Your task to perform on an android device: Open calendar and show me the fourth week of next month Image 0: 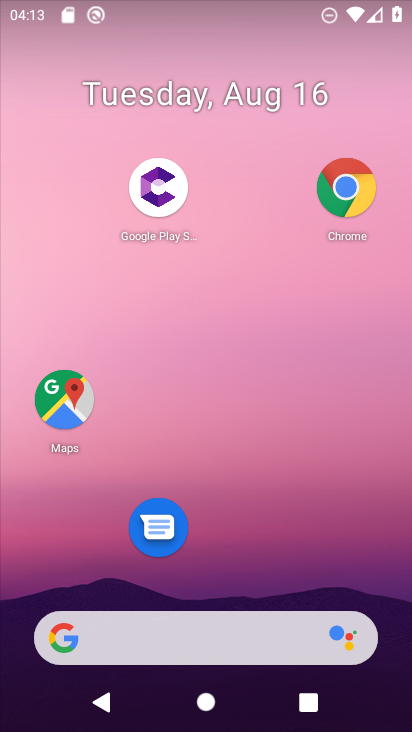
Step 0: press home button
Your task to perform on an android device: Open calendar and show me the fourth week of next month Image 1: 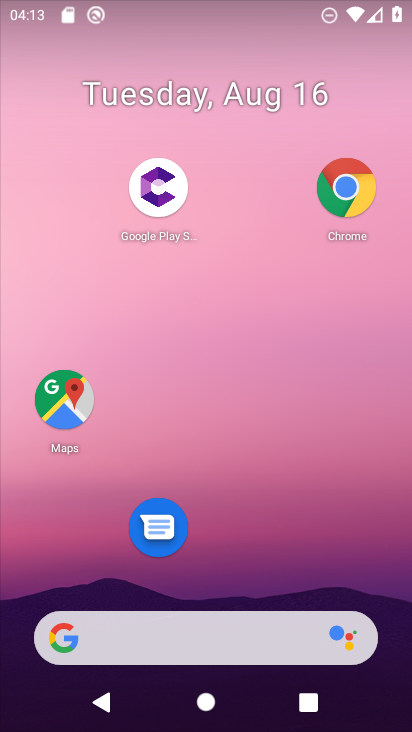
Step 1: drag from (229, 579) to (256, 91)
Your task to perform on an android device: Open calendar and show me the fourth week of next month Image 2: 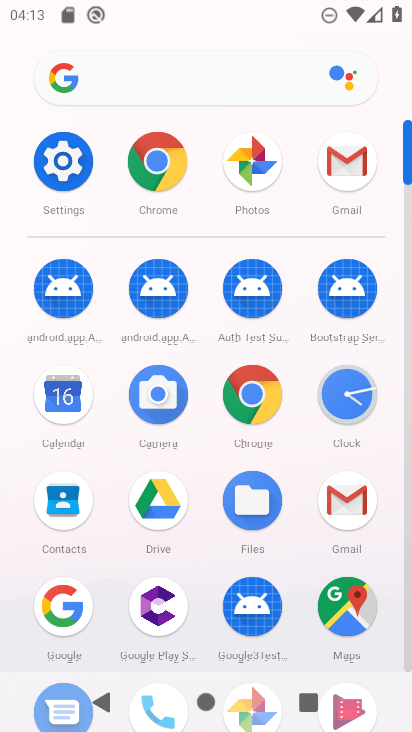
Step 2: click (66, 388)
Your task to perform on an android device: Open calendar and show me the fourth week of next month Image 3: 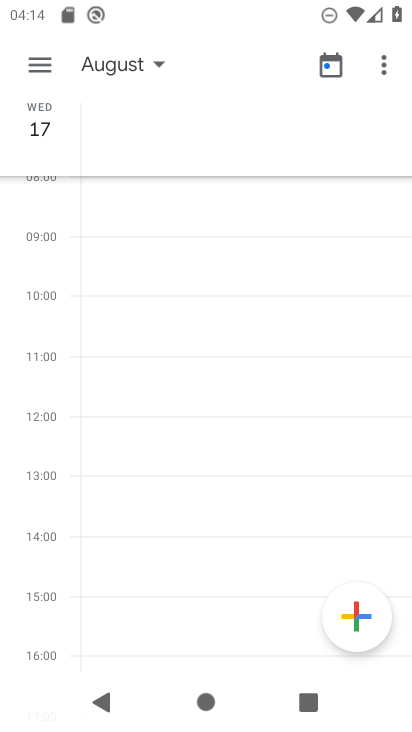
Step 3: click (150, 63)
Your task to perform on an android device: Open calendar and show me the fourth week of next month Image 4: 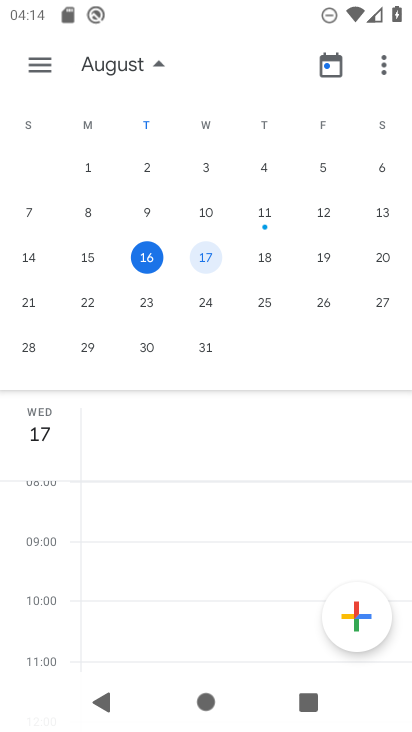
Step 4: drag from (382, 245) to (0, 246)
Your task to perform on an android device: Open calendar and show me the fourth week of next month Image 5: 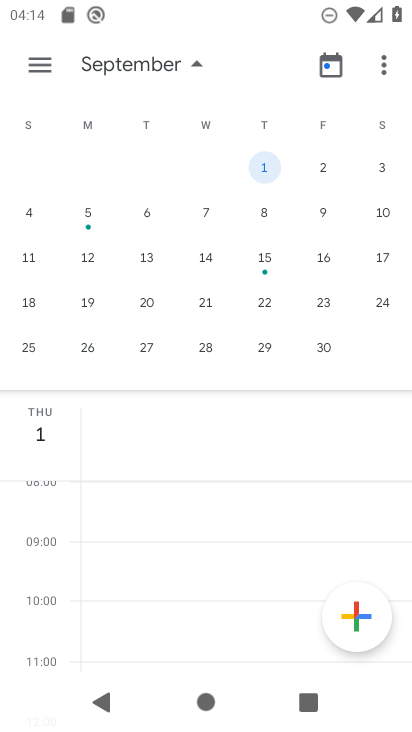
Step 5: click (28, 342)
Your task to perform on an android device: Open calendar and show me the fourth week of next month Image 6: 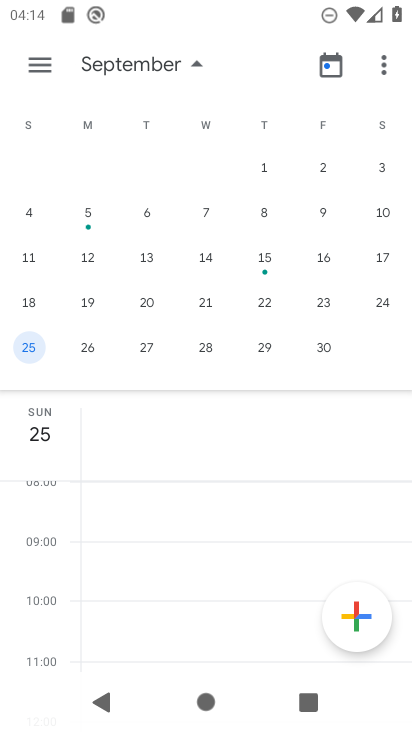
Step 6: click (198, 62)
Your task to perform on an android device: Open calendar and show me the fourth week of next month Image 7: 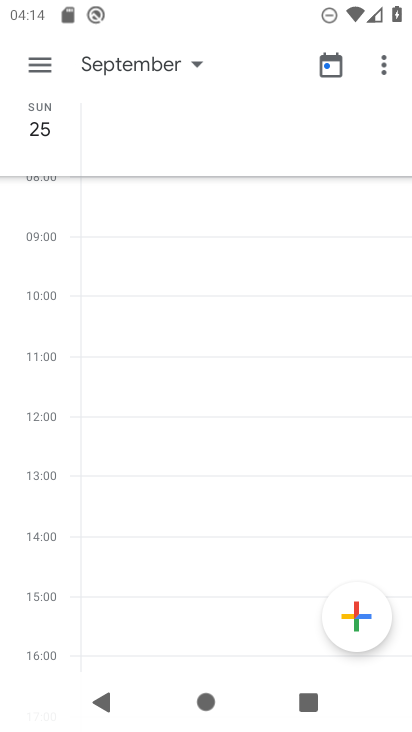
Step 7: click (52, 142)
Your task to perform on an android device: Open calendar and show me the fourth week of next month Image 8: 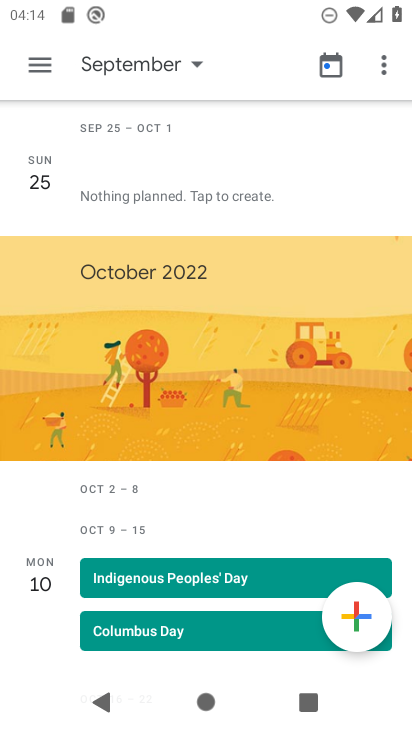
Step 8: task complete